Your task to perform on an android device: Show me the alarms in the clock app Image 0: 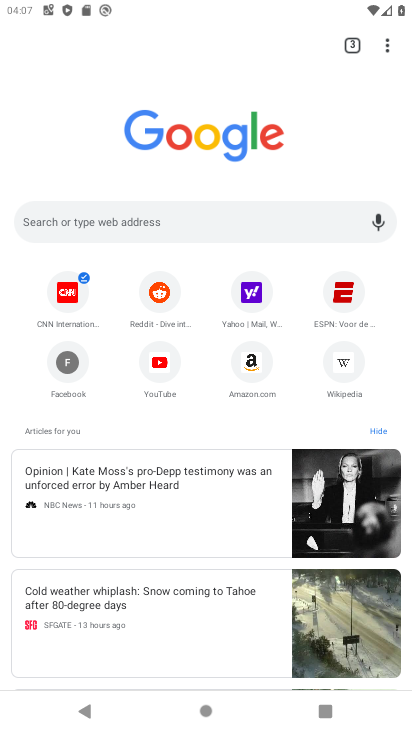
Step 0: press home button
Your task to perform on an android device: Show me the alarms in the clock app Image 1: 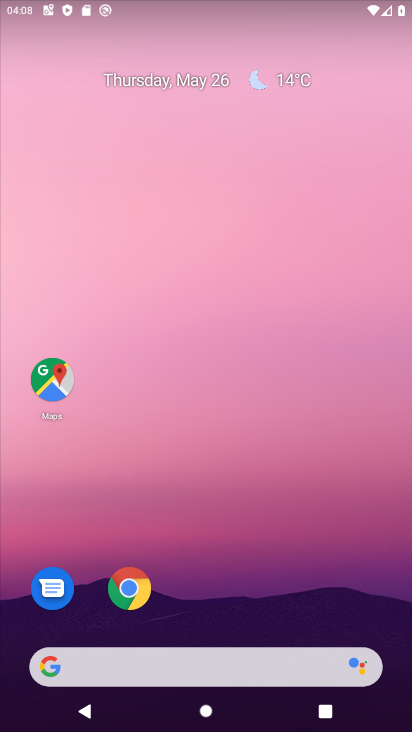
Step 1: drag from (266, 586) to (272, 80)
Your task to perform on an android device: Show me the alarms in the clock app Image 2: 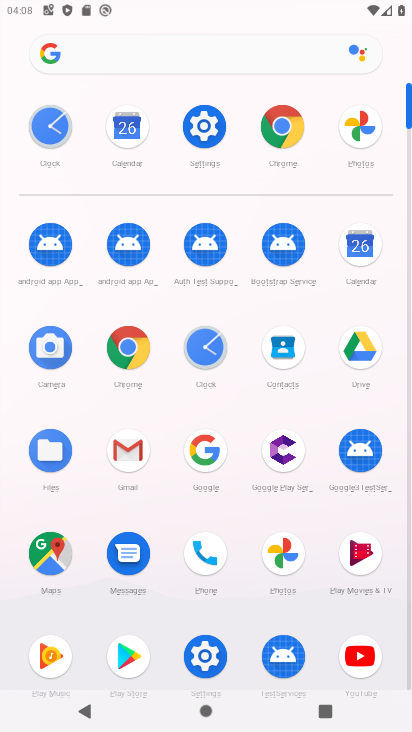
Step 2: click (40, 132)
Your task to perform on an android device: Show me the alarms in the clock app Image 3: 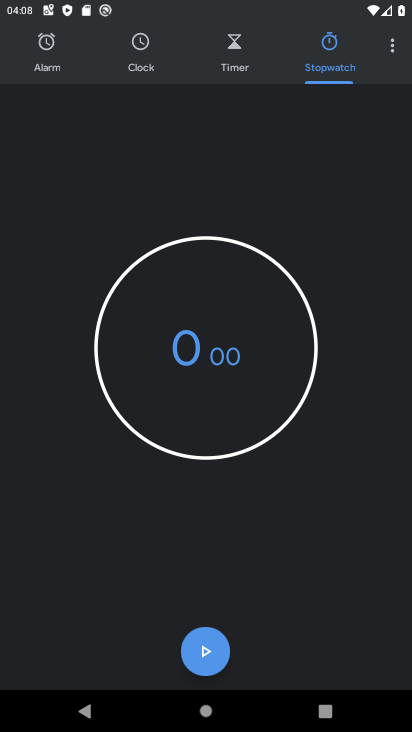
Step 3: click (397, 58)
Your task to perform on an android device: Show me the alarms in the clock app Image 4: 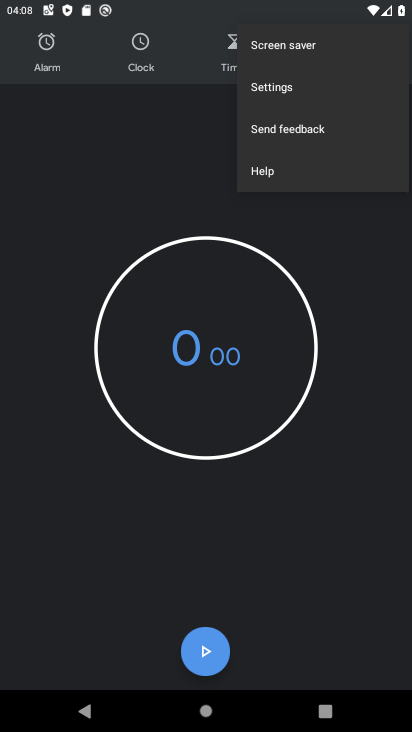
Step 4: click (307, 92)
Your task to perform on an android device: Show me the alarms in the clock app Image 5: 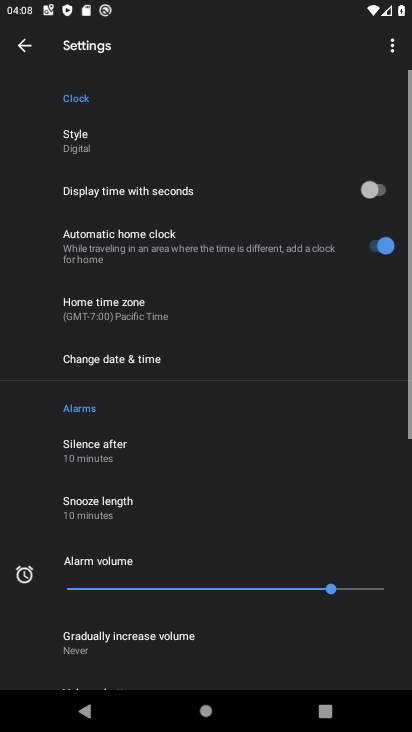
Step 5: click (34, 54)
Your task to perform on an android device: Show me the alarms in the clock app Image 6: 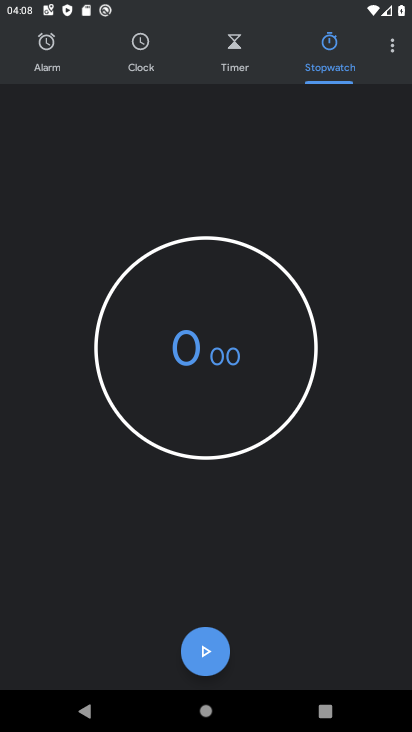
Step 6: click (34, 54)
Your task to perform on an android device: Show me the alarms in the clock app Image 7: 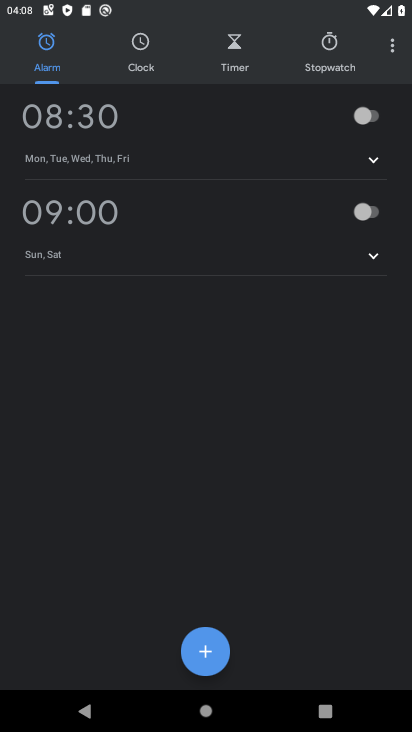
Step 7: task complete